Your task to perform on an android device: turn off wifi Image 0: 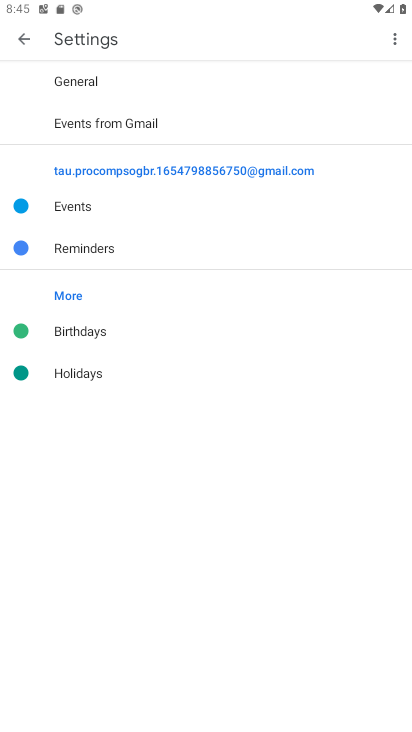
Step 0: task complete